Your task to perform on an android device: Search for sushi restaurants on Maps Image 0: 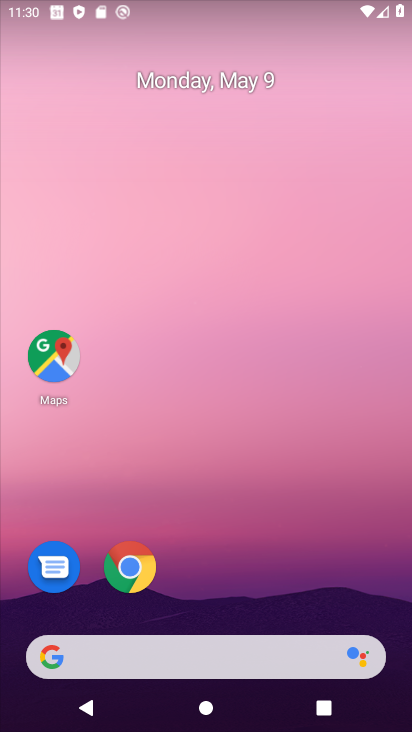
Step 0: drag from (388, 647) to (273, 126)
Your task to perform on an android device: Search for sushi restaurants on Maps Image 1: 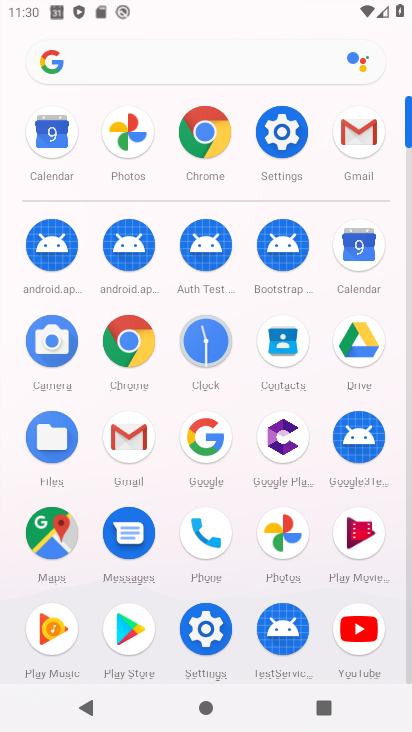
Step 1: click (68, 546)
Your task to perform on an android device: Search for sushi restaurants on Maps Image 2: 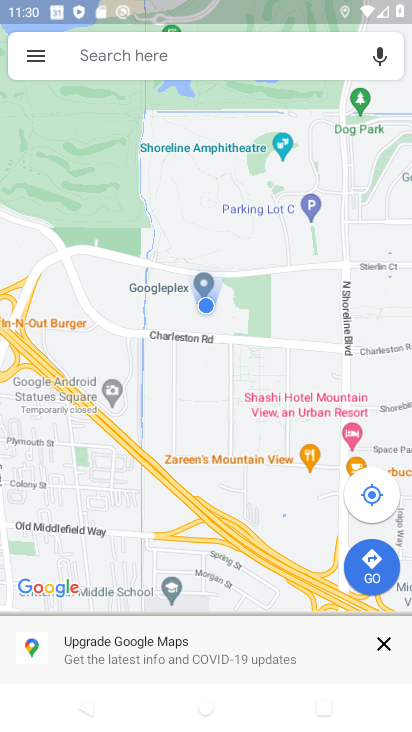
Step 2: click (173, 56)
Your task to perform on an android device: Search for sushi restaurants on Maps Image 3: 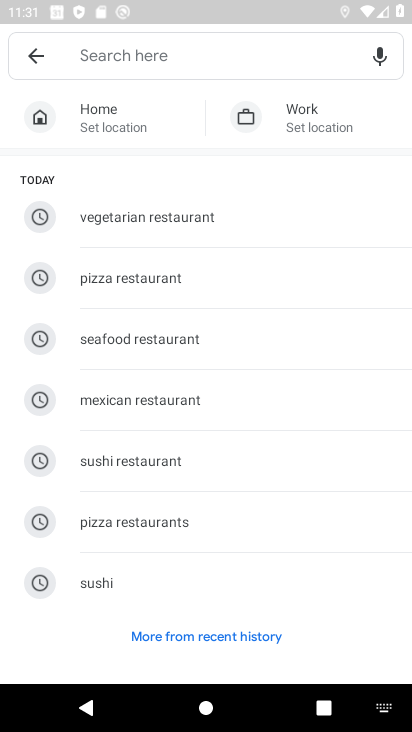
Step 3: click (175, 484)
Your task to perform on an android device: Search for sushi restaurants on Maps Image 4: 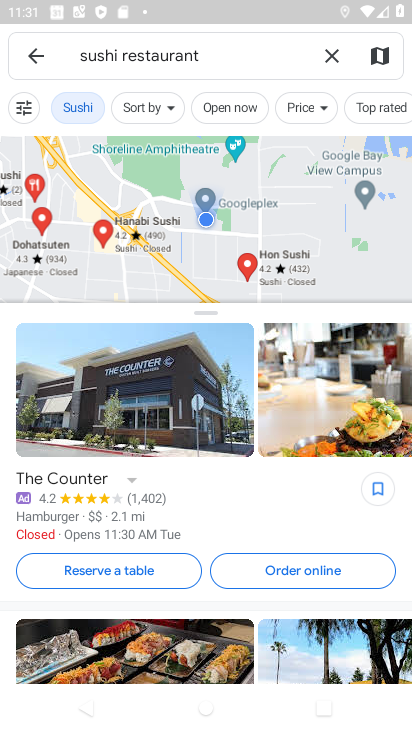
Step 4: task complete